Your task to perform on an android device: turn off wifi Image 0: 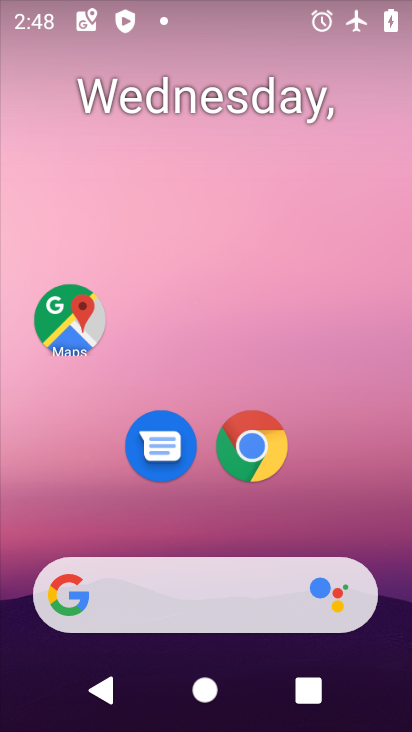
Step 0: drag from (203, 532) to (215, 196)
Your task to perform on an android device: turn off wifi Image 1: 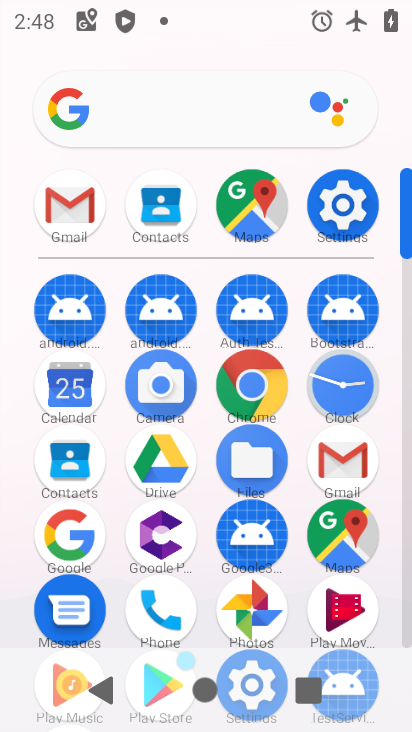
Step 1: click (328, 219)
Your task to perform on an android device: turn off wifi Image 2: 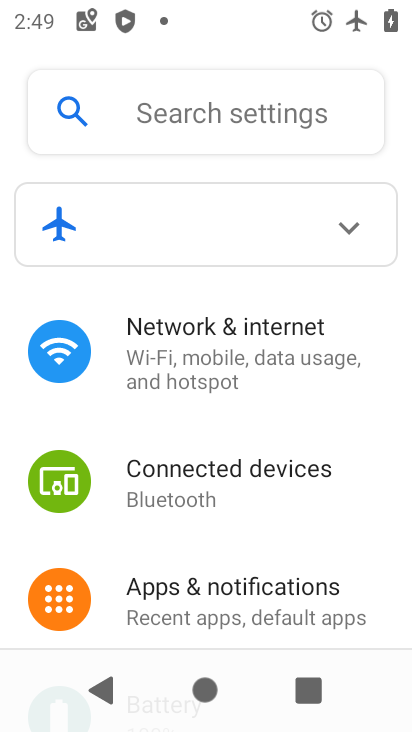
Step 2: click (163, 341)
Your task to perform on an android device: turn off wifi Image 3: 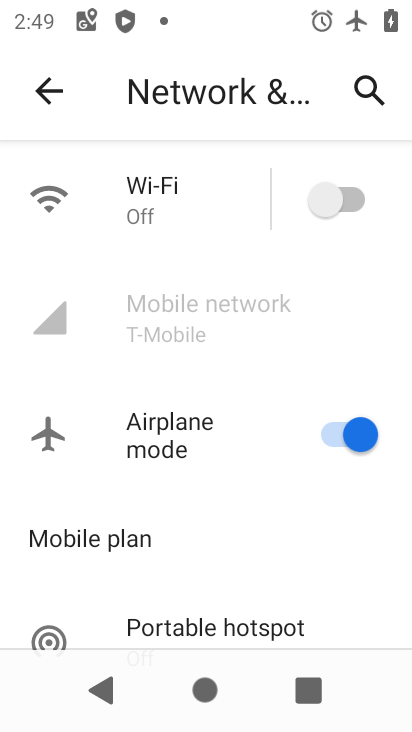
Step 3: task complete